Your task to perform on an android device: turn off smart reply in the gmail app Image 0: 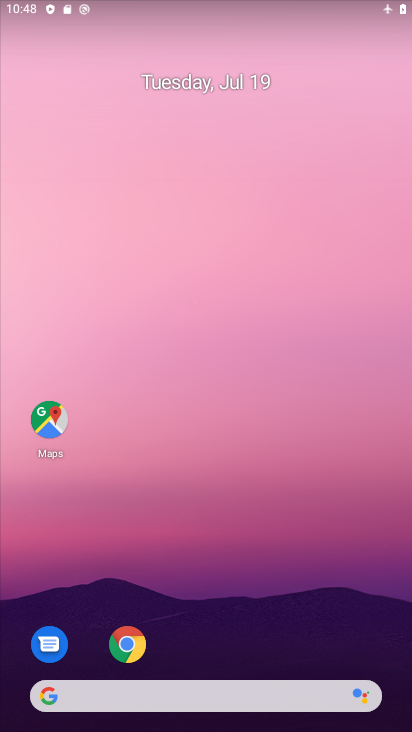
Step 0: drag from (227, 572) to (198, 120)
Your task to perform on an android device: turn off smart reply in the gmail app Image 1: 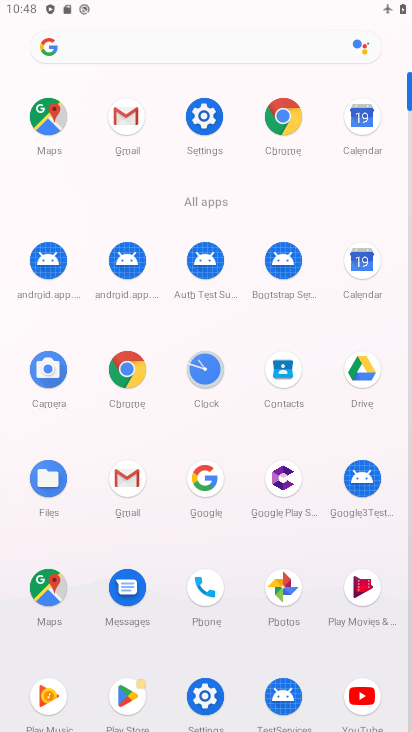
Step 1: click (122, 120)
Your task to perform on an android device: turn off smart reply in the gmail app Image 2: 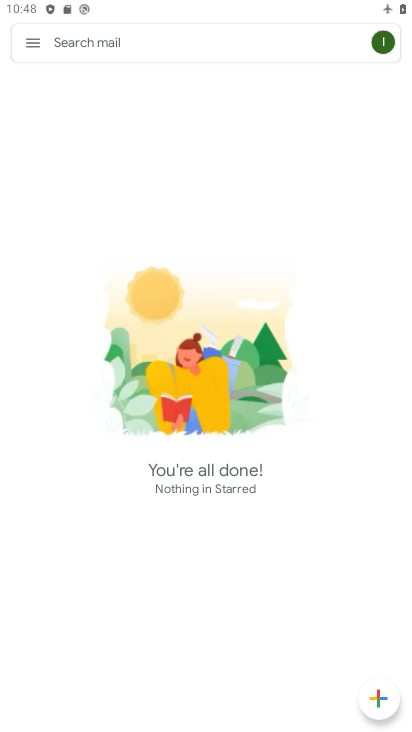
Step 2: click (32, 34)
Your task to perform on an android device: turn off smart reply in the gmail app Image 3: 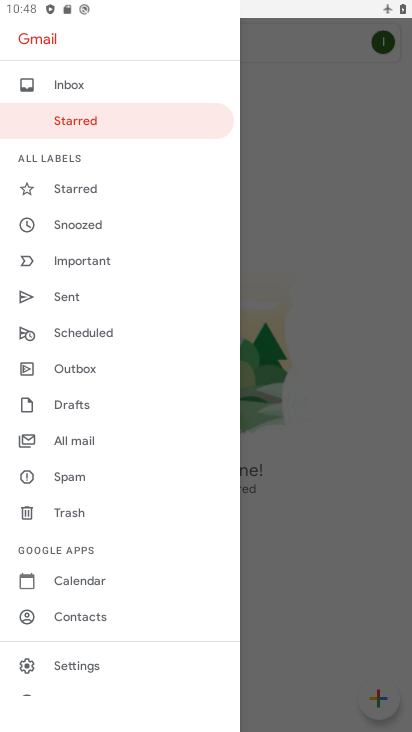
Step 3: drag from (132, 611) to (134, 282)
Your task to perform on an android device: turn off smart reply in the gmail app Image 4: 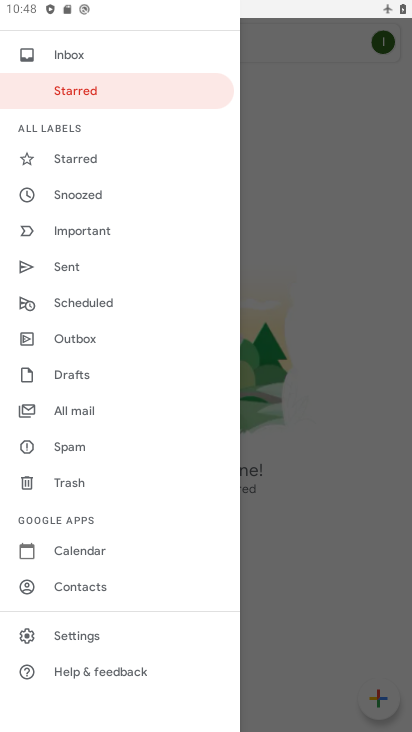
Step 4: click (72, 632)
Your task to perform on an android device: turn off smart reply in the gmail app Image 5: 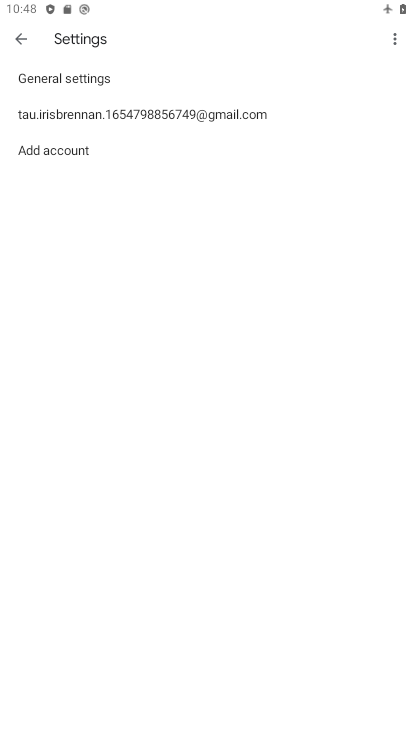
Step 5: click (80, 106)
Your task to perform on an android device: turn off smart reply in the gmail app Image 6: 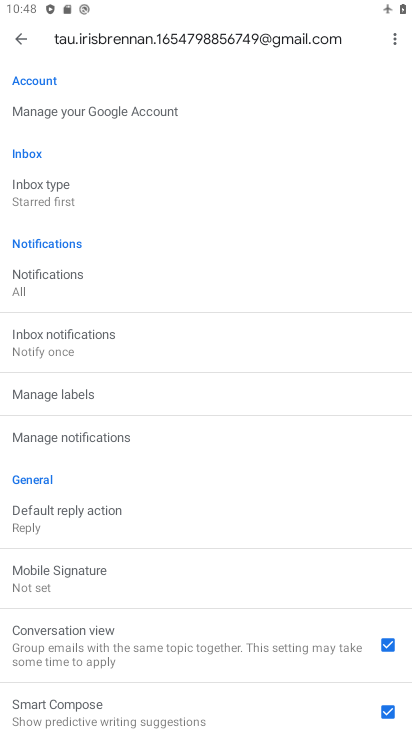
Step 6: drag from (174, 588) to (183, 209)
Your task to perform on an android device: turn off smart reply in the gmail app Image 7: 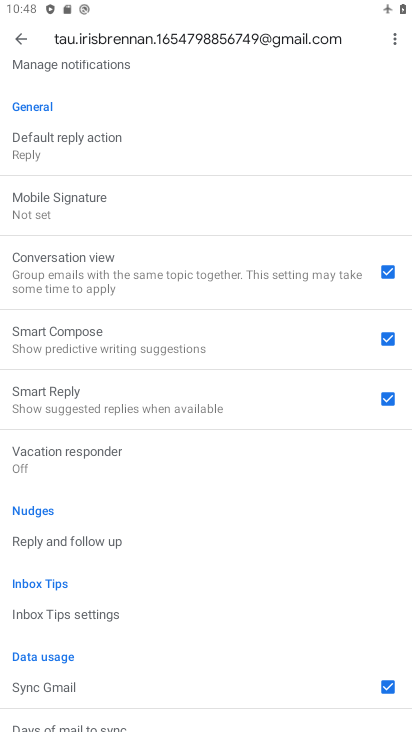
Step 7: click (388, 397)
Your task to perform on an android device: turn off smart reply in the gmail app Image 8: 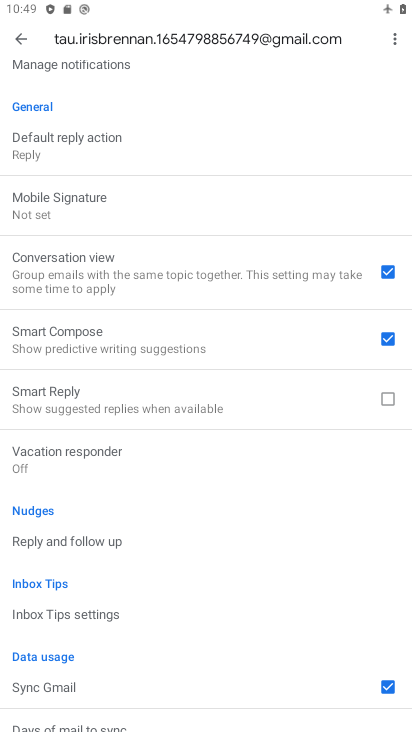
Step 8: task complete